Your task to perform on an android device: turn on location history Image 0: 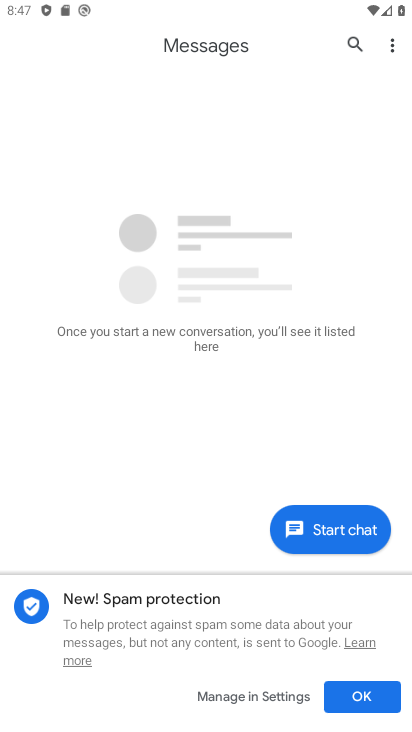
Step 0: press home button
Your task to perform on an android device: turn on location history Image 1: 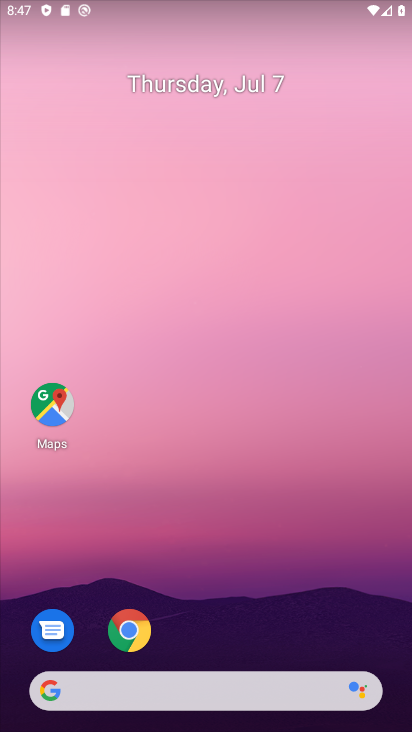
Step 1: drag from (274, 643) to (323, 288)
Your task to perform on an android device: turn on location history Image 2: 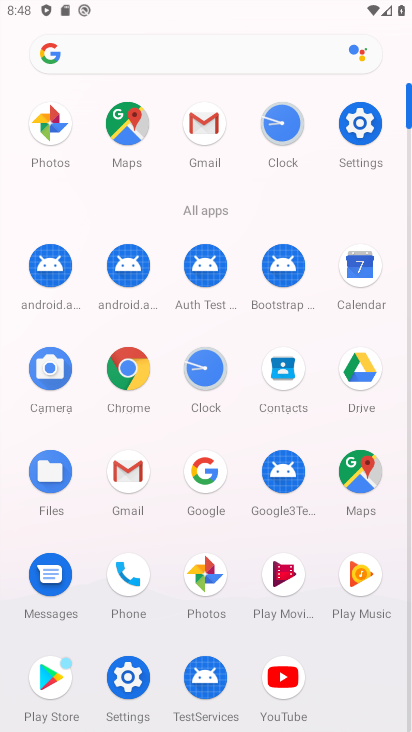
Step 2: click (353, 473)
Your task to perform on an android device: turn on location history Image 3: 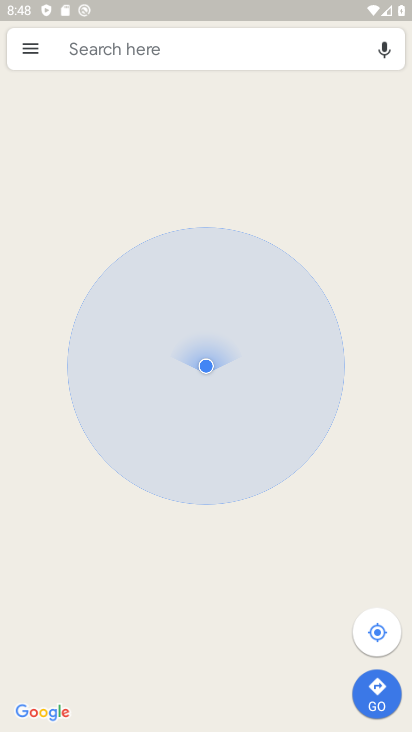
Step 3: click (27, 43)
Your task to perform on an android device: turn on location history Image 4: 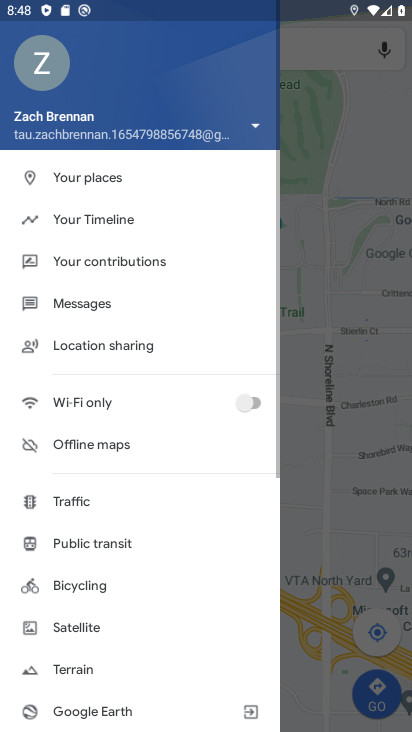
Step 4: click (82, 219)
Your task to perform on an android device: turn on location history Image 5: 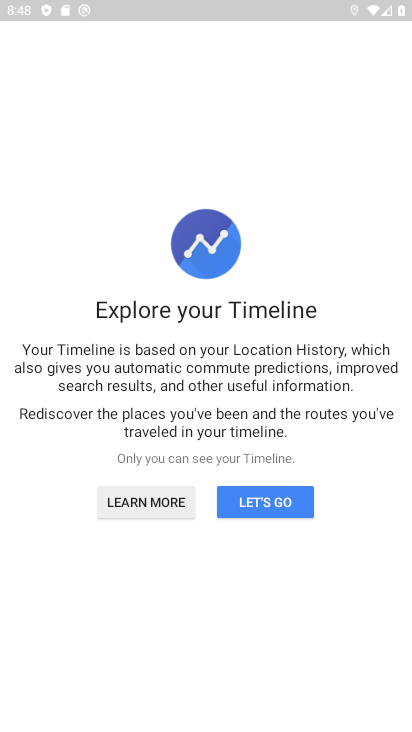
Step 5: click (269, 503)
Your task to perform on an android device: turn on location history Image 6: 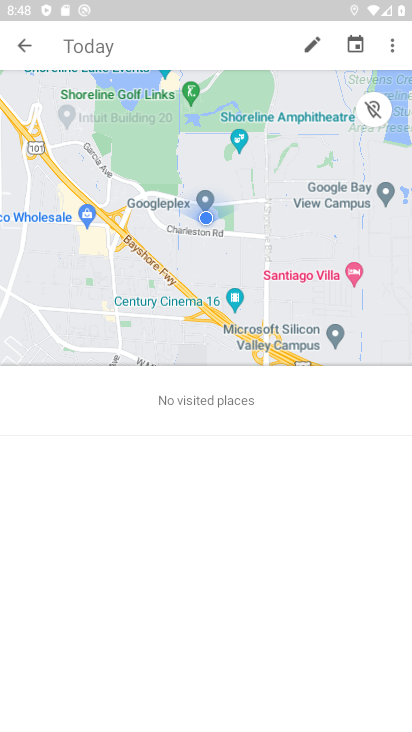
Step 6: click (391, 42)
Your task to perform on an android device: turn on location history Image 7: 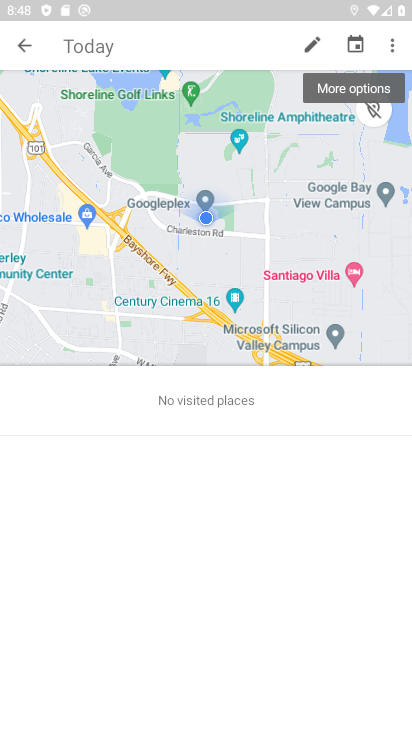
Step 7: click (391, 42)
Your task to perform on an android device: turn on location history Image 8: 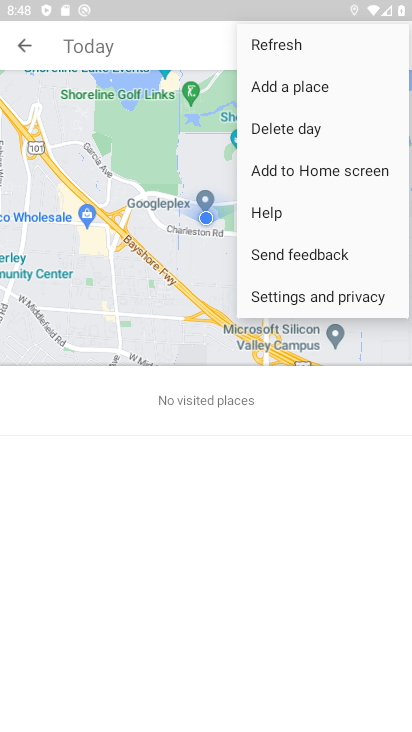
Step 8: click (298, 296)
Your task to perform on an android device: turn on location history Image 9: 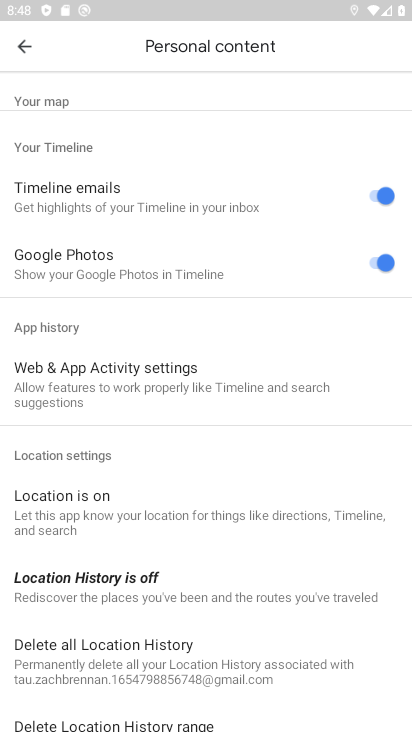
Step 9: drag from (247, 585) to (271, 359)
Your task to perform on an android device: turn on location history Image 10: 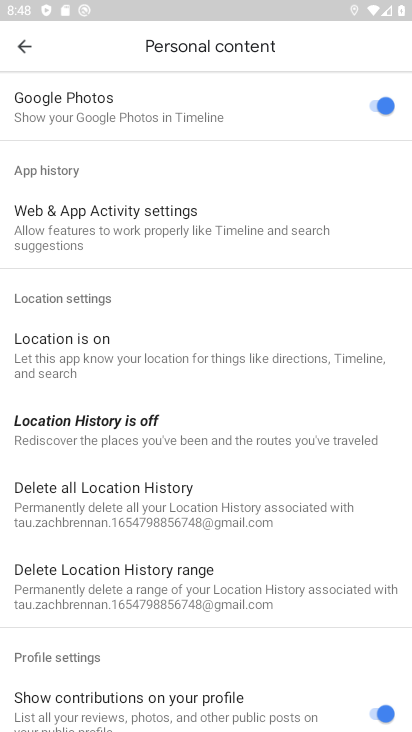
Step 10: click (114, 419)
Your task to perform on an android device: turn on location history Image 11: 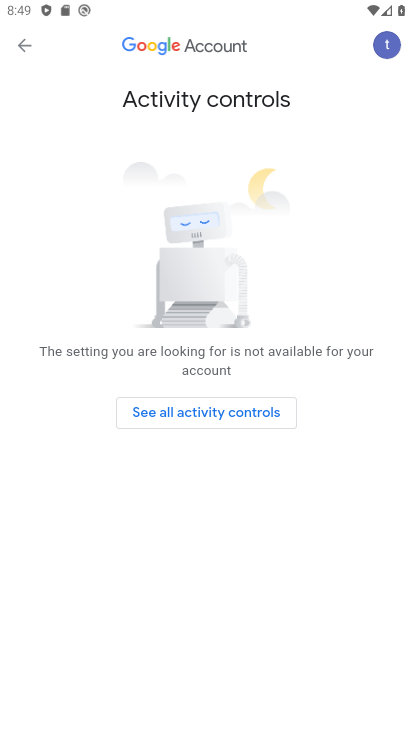
Step 11: press home button
Your task to perform on an android device: turn on location history Image 12: 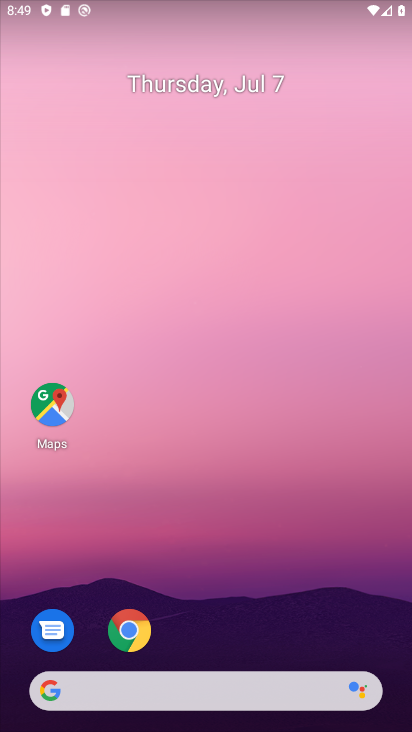
Step 12: drag from (291, 629) to (292, 180)
Your task to perform on an android device: turn on location history Image 13: 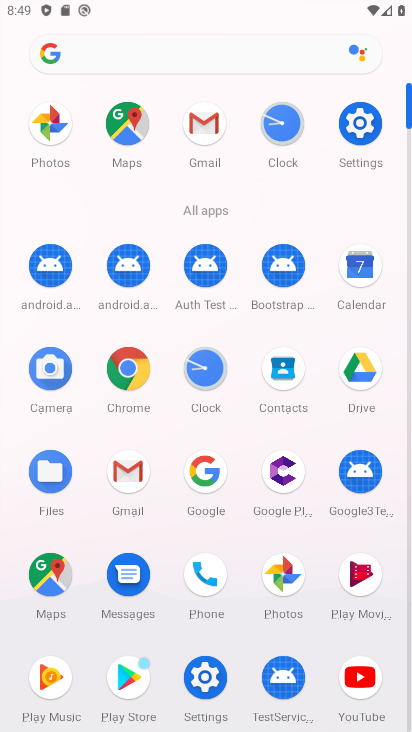
Step 13: click (132, 128)
Your task to perform on an android device: turn on location history Image 14: 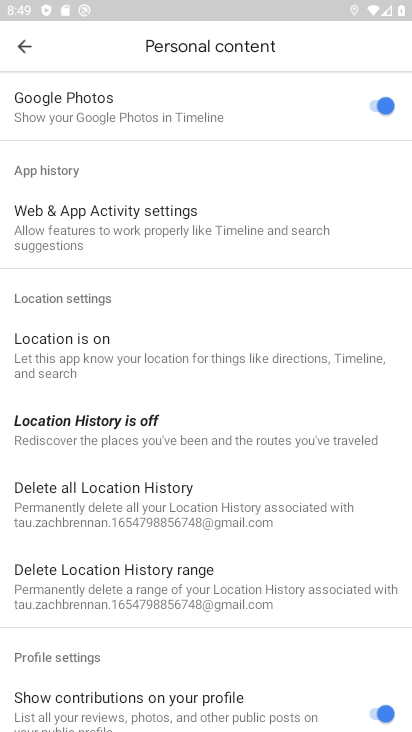
Step 14: click (105, 420)
Your task to perform on an android device: turn on location history Image 15: 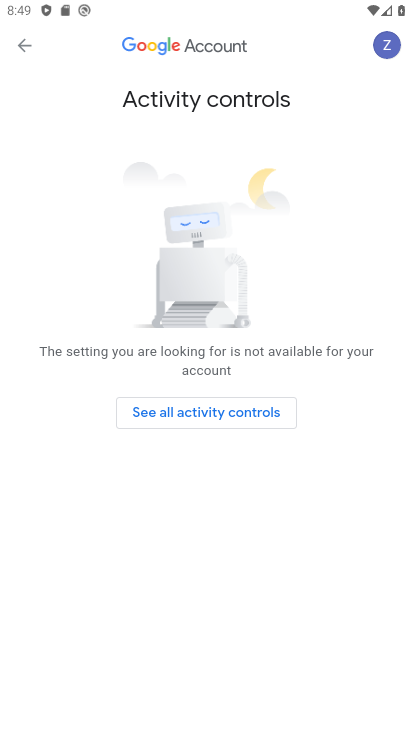
Step 15: task complete